Your task to perform on an android device: toggle sleep mode Image 0: 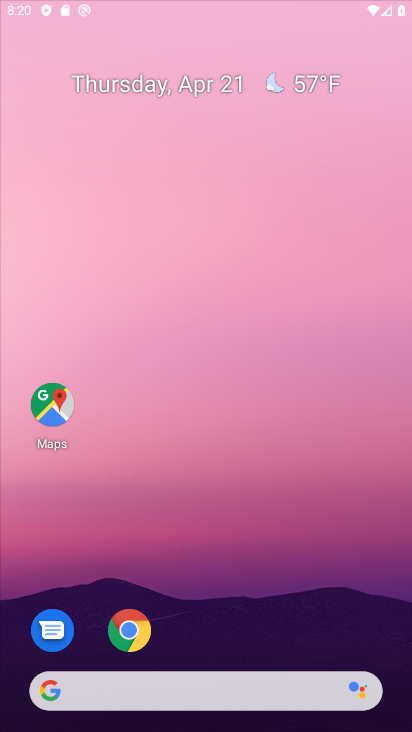
Step 0: drag from (304, 605) to (345, 83)
Your task to perform on an android device: toggle sleep mode Image 1: 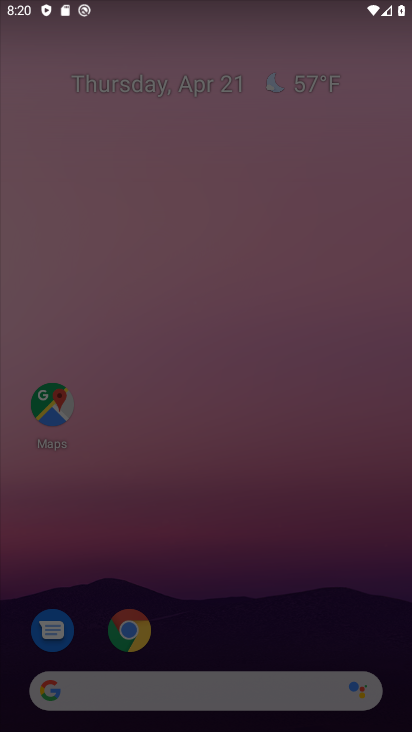
Step 1: press home button
Your task to perform on an android device: toggle sleep mode Image 2: 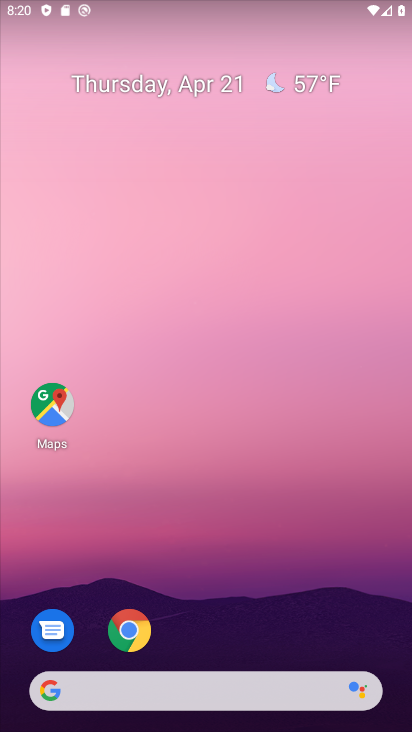
Step 2: drag from (296, 614) to (289, 108)
Your task to perform on an android device: toggle sleep mode Image 3: 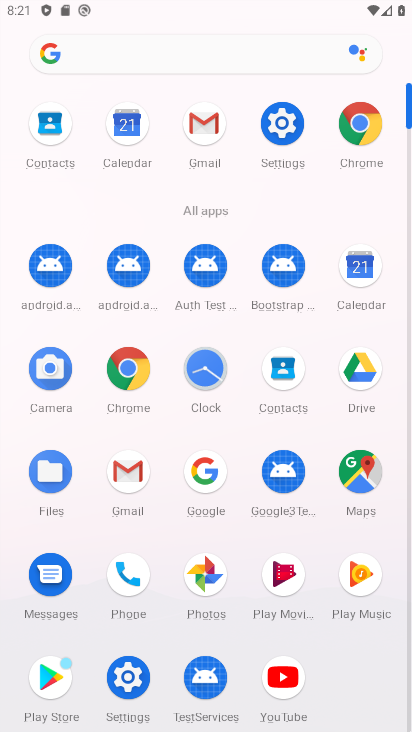
Step 3: click (291, 124)
Your task to perform on an android device: toggle sleep mode Image 4: 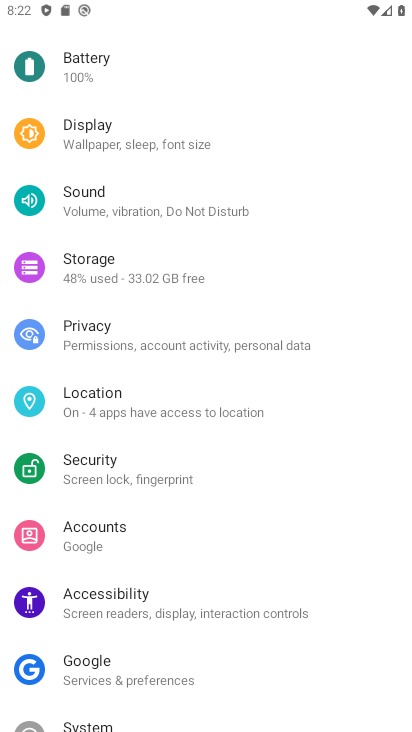
Step 4: task complete